Your task to perform on an android device: Do I have any events today? Image 0: 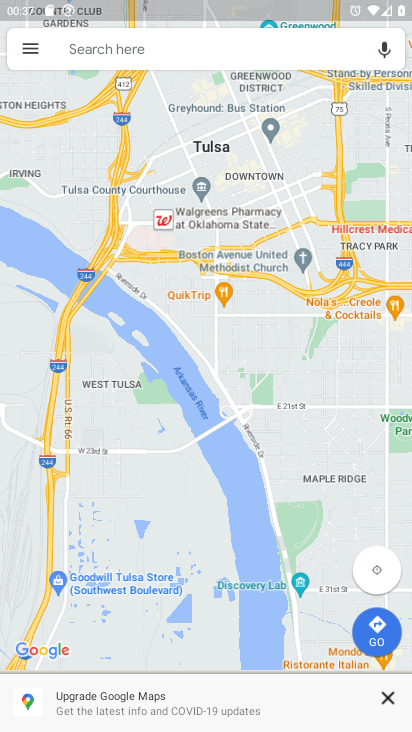
Step 0: press home button
Your task to perform on an android device: Do I have any events today? Image 1: 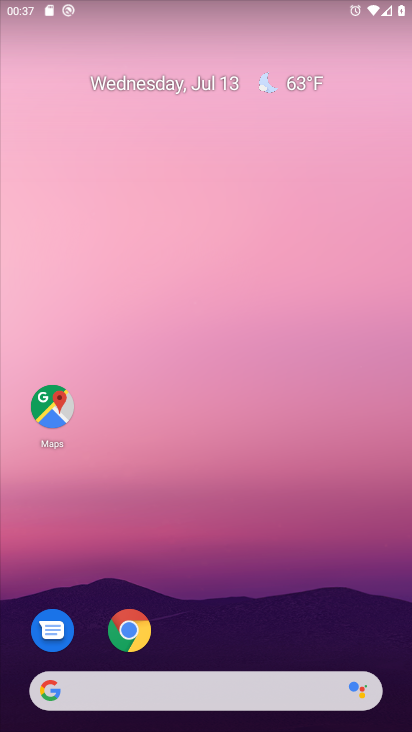
Step 1: drag from (204, 679) to (343, 346)
Your task to perform on an android device: Do I have any events today? Image 2: 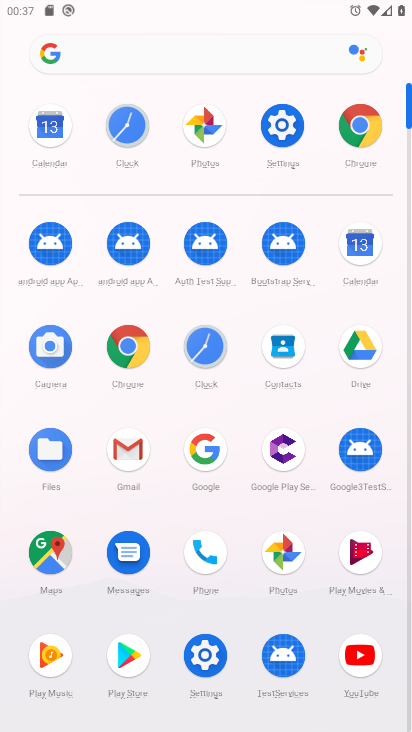
Step 2: click (362, 254)
Your task to perform on an android device: Do I have any events today? Image 3: 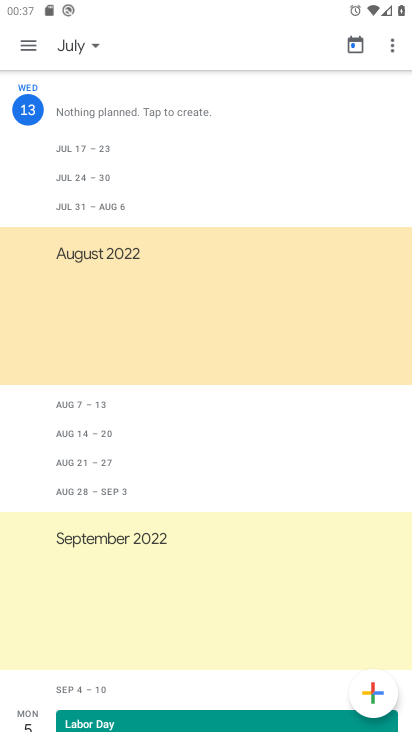
Step 3: click (22, 57)
Your task to perform on an android device: Do I have any events today? Image 4: 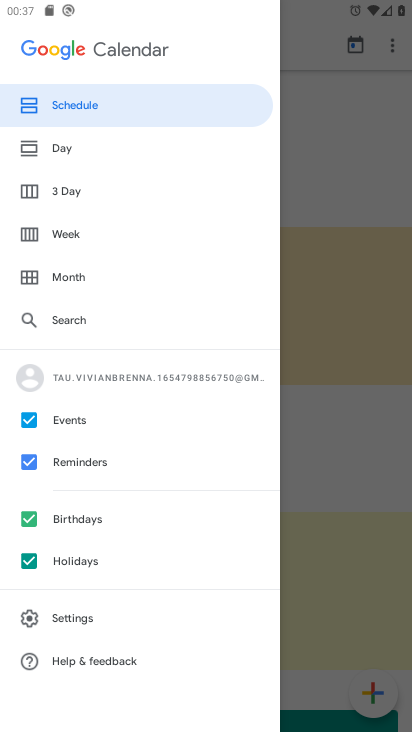
Step 4: click (92, 115)
Your task to perform on an android device: Do I have any events today? Image 5: 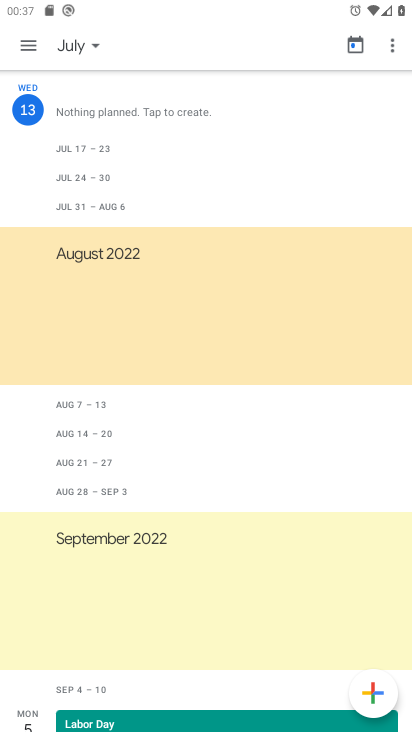
Step 5: task complete